Your task to perform on an android device: snooze an email in the gmail app Image 0: 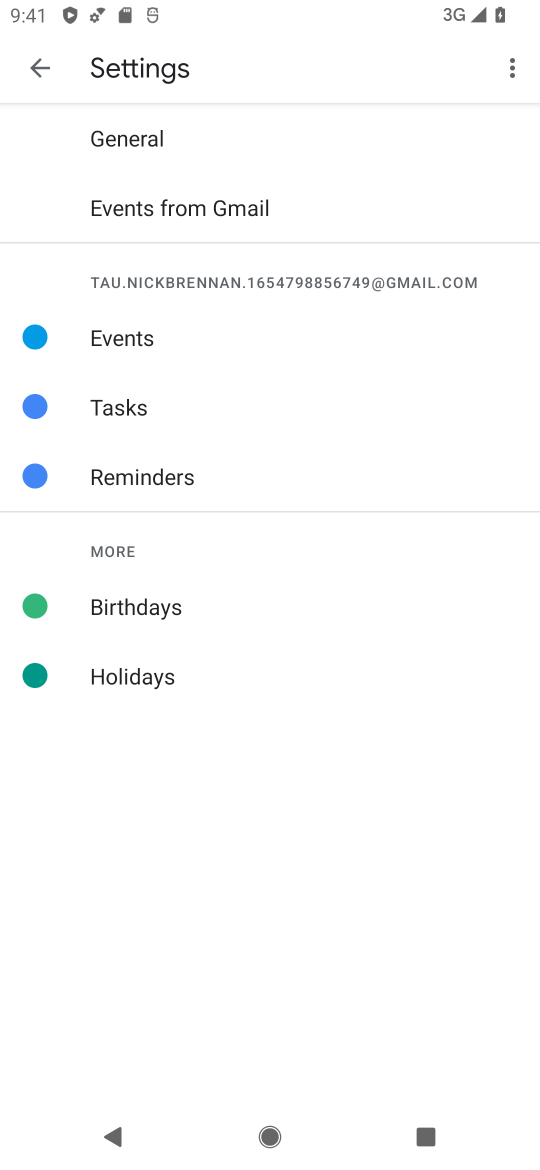
Step 0: press home button
Your task to perform on an android device: snooze an email in the gmail app Image 1: 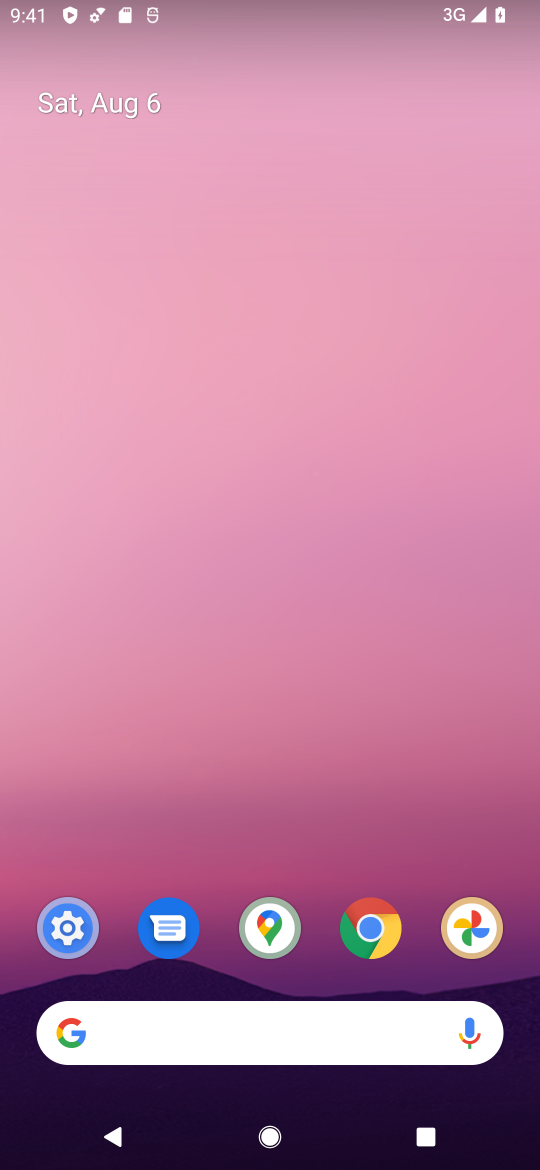
Step 1: drag from (270, 864) to (259, 11)
Your task to perform on an android device: snooze an email in the gmail app Image 2: 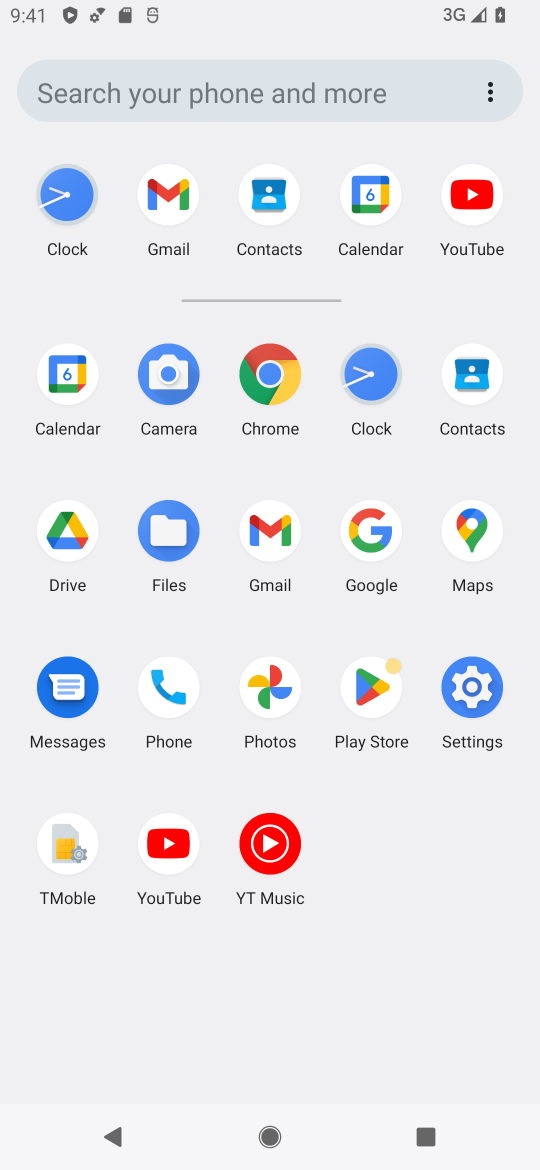
Step 2: click (270, 527)
Your task to perform on an android device: snooze an email in the gmail app Image 3: 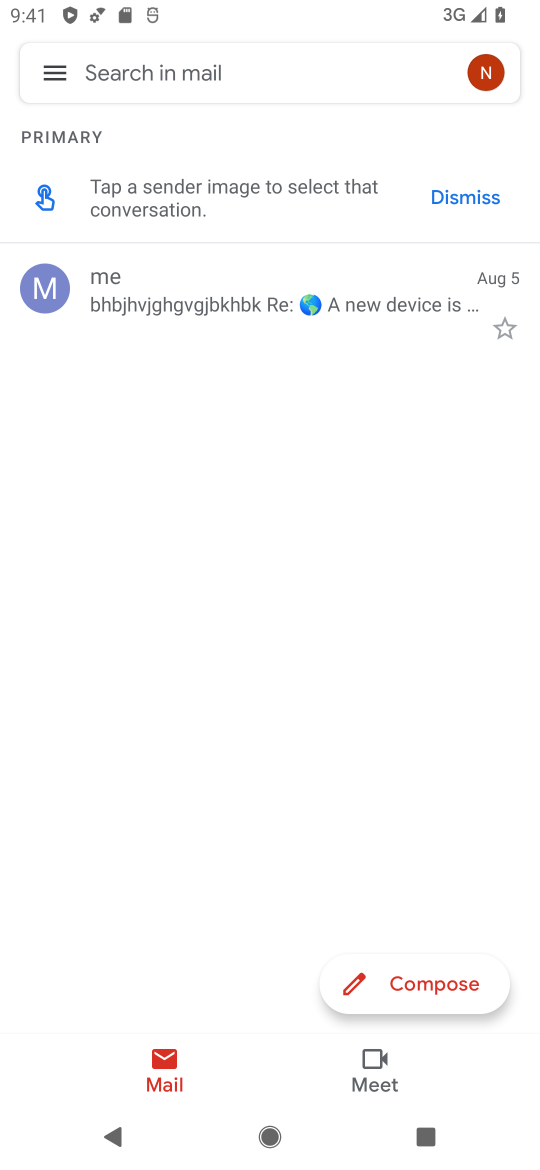
Step 3: click (102, 303)
Your task to perform on an android device: snooze an email in the gmail app Image 4: 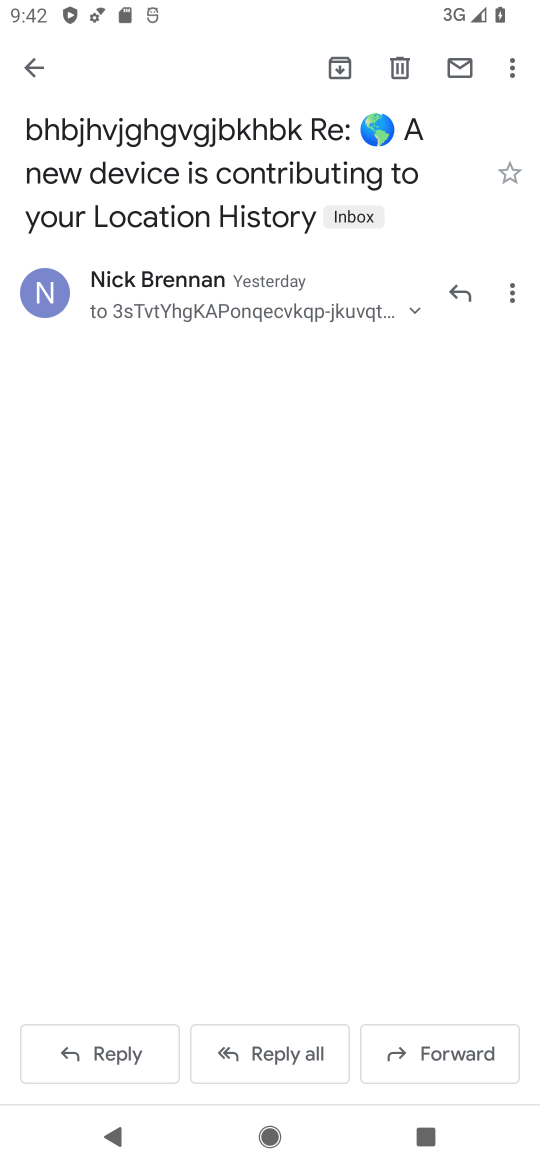
Step 4: click (515, 291)
Your task to perform on an android device: snooze an email in the gmail app Image 5: 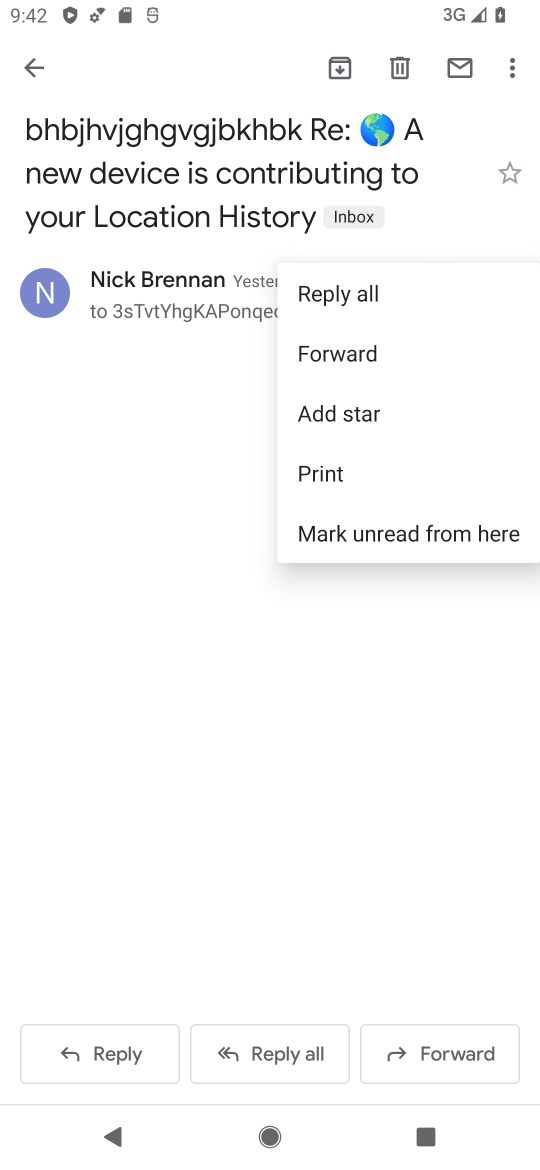
Step 5: click (129, 403)
Your task to perform on an android device: snooze an email in the gmail app Image 6: 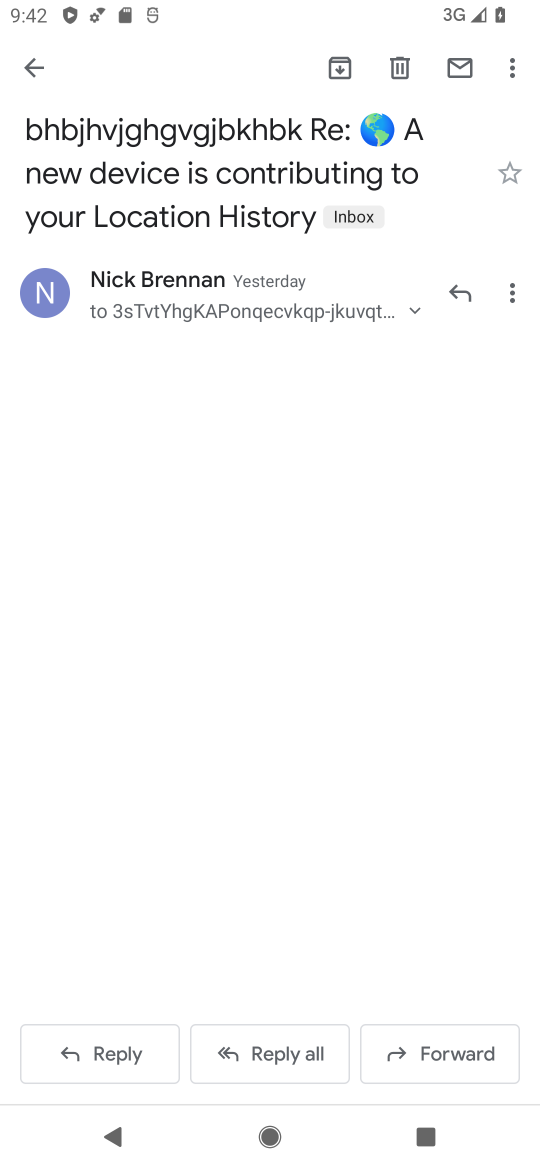
Step 6: click (517, 57)
Your task to perform on an android device: snooze an email in the gmail app Image 7: 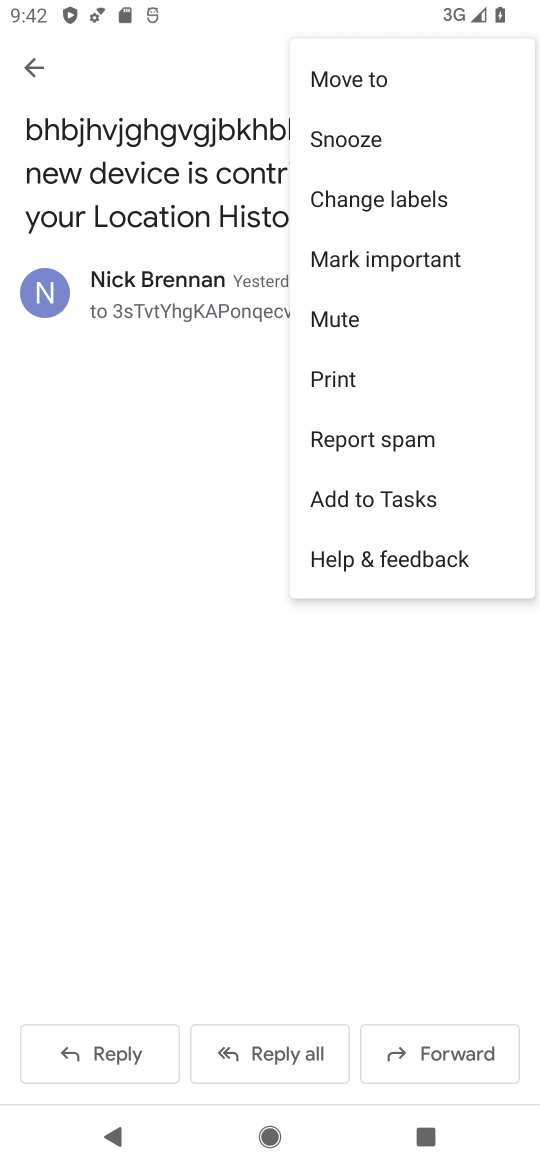
Step 7: click (345, 130)
Your task to perform on an android device: snooze an email in the gmail app Image 8: 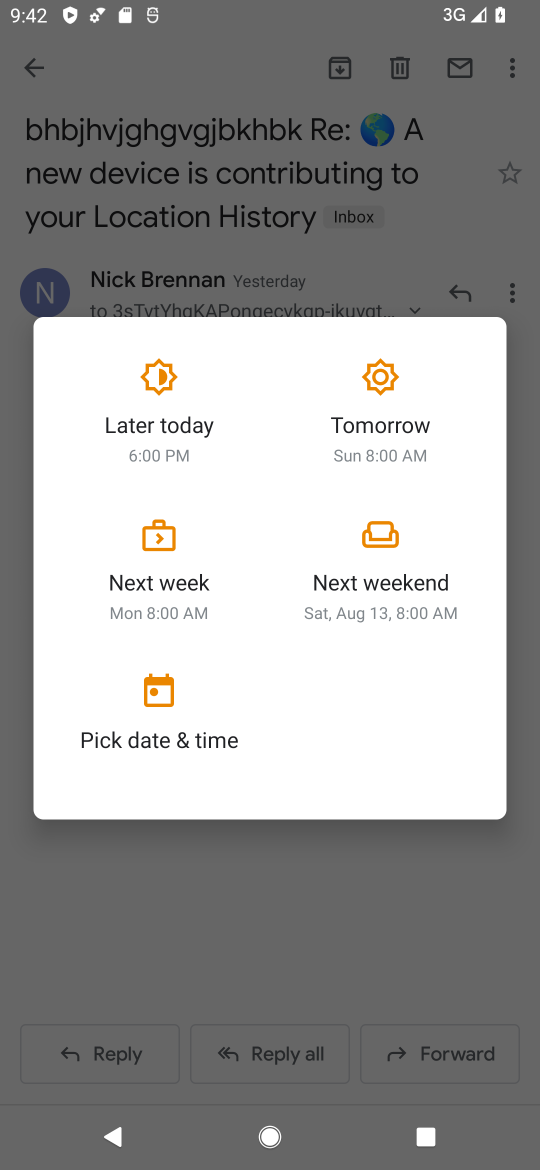
Step 8: click (148, 382)
Your task to perform on an android device: snooze an email in the gmail app Image 9: 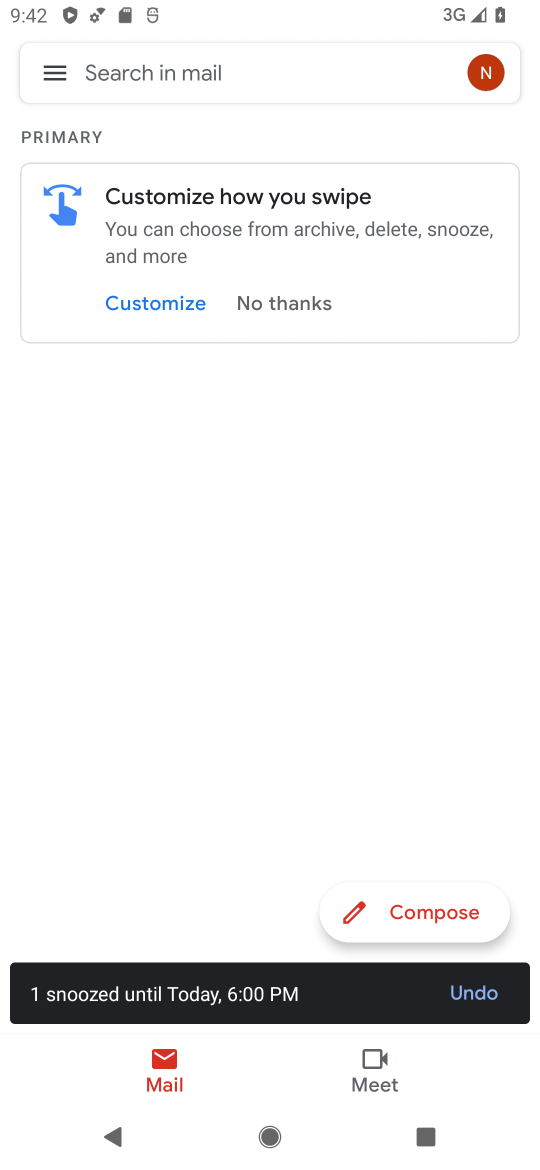
Step 9: task complete